Your task to perform on an android device: Open settings on Google Maps Image 0: 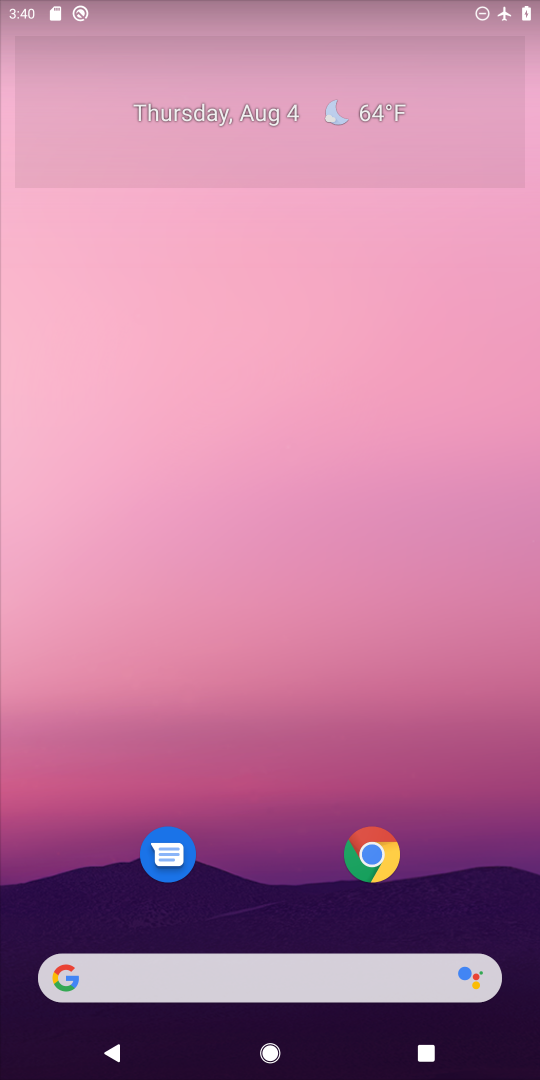
Step 0: drag from (280, 814) to (400, 189)
Your task to perform on an android device: Open settings on Google Maps Image 1: 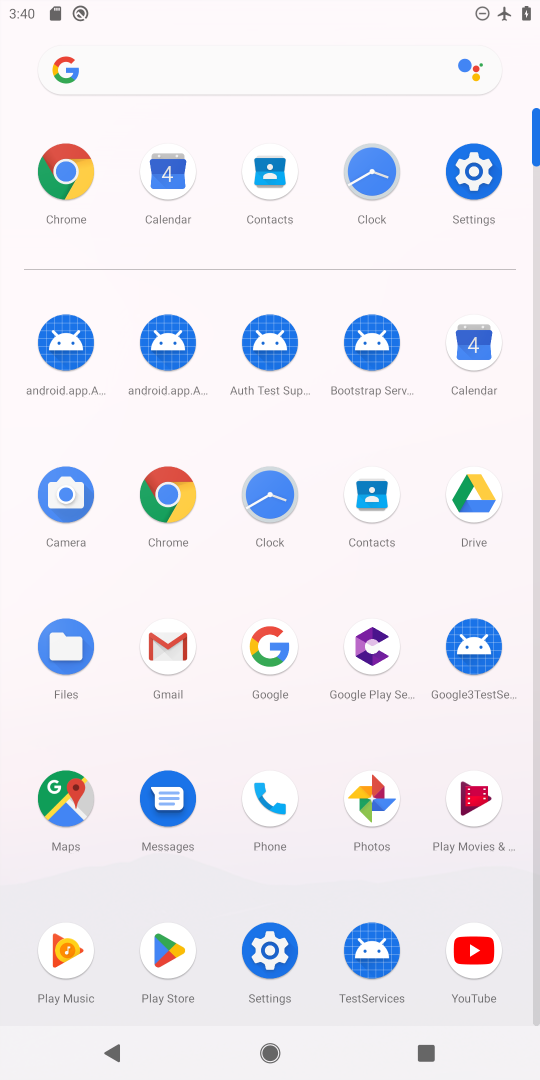
Step 1: click (66, 807)
Your task to perform on an android device: Open settings on Google Maps Image 2: 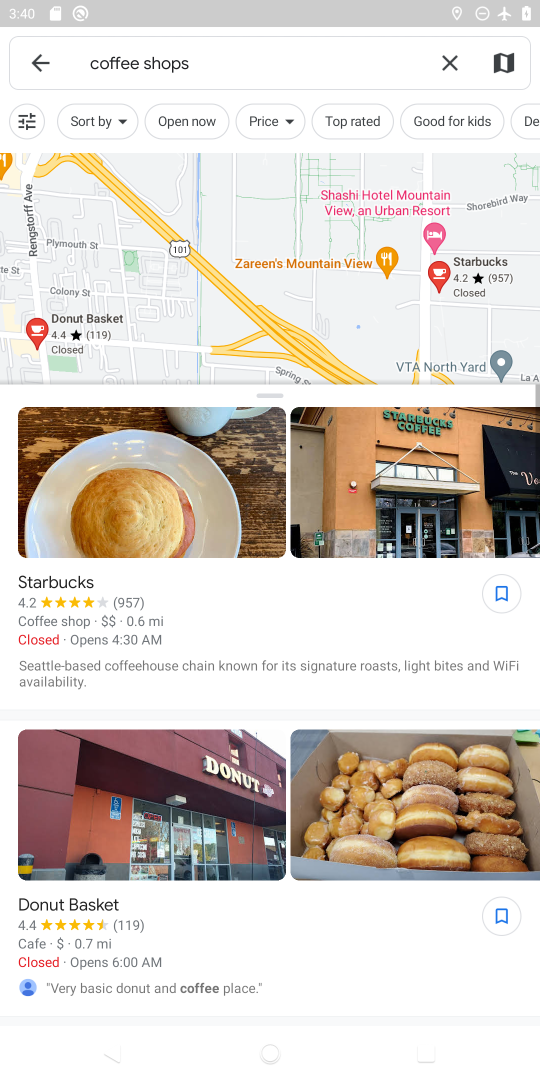
Step 2: click (39, 70)
Your task to perform on an android device: Open settings on Google Maps Image 3: 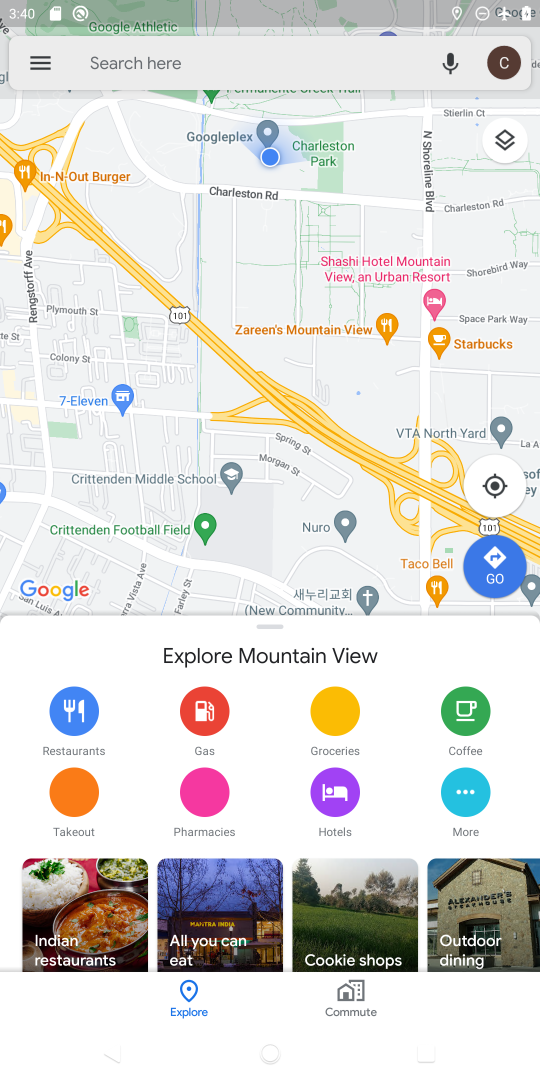
Step 3: click (39, 70)
Your task to perform on an android device: Open settings on Google Maps Image 4: 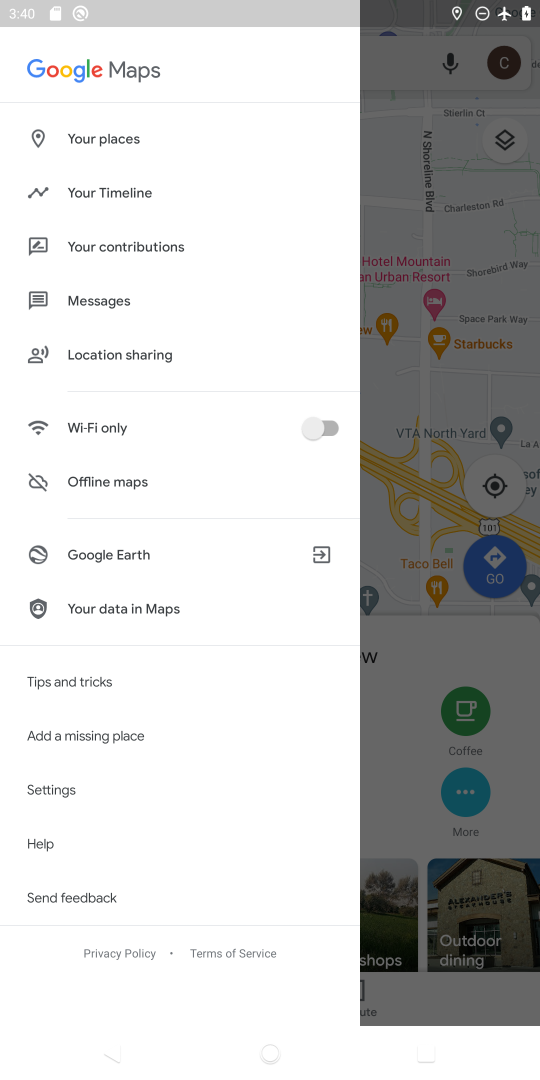
Step 4: click (83, 795)
Your task to perform on an android device: Open settings on Google Maps Image 5: 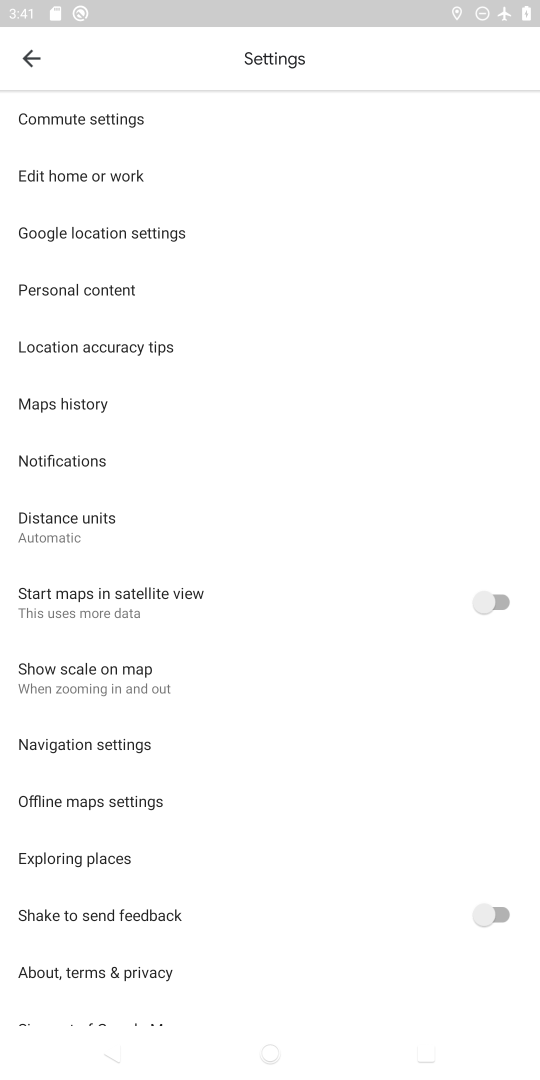
Step 5: task complete